Your task to perform on an android device: Search for "logitech g502" on costco, select the first entry, add it to the cart, then select checkout. Image 0: 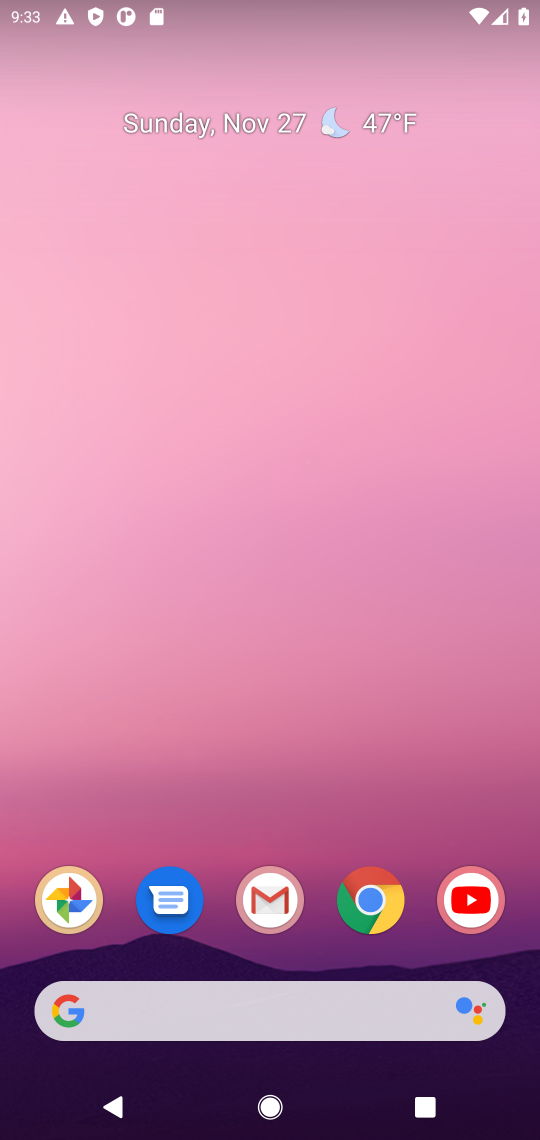
Step 0: click (374, 903)
Your task to perform on an android device: Search for "logitech g502" on costco, select the first entry, add it to the cart, then select checkout. Image 1: 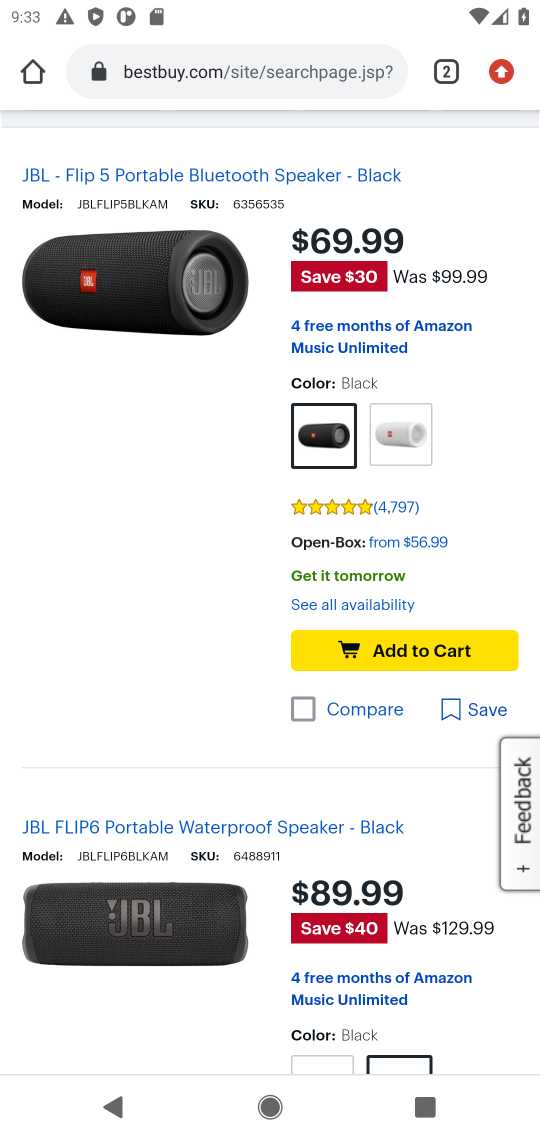
Step 1: click (199, 73)
Your task to perform on an android device: Search for "logitech g502" on costco, select the first entry, add it to the cart, then select checkout. Image 2: 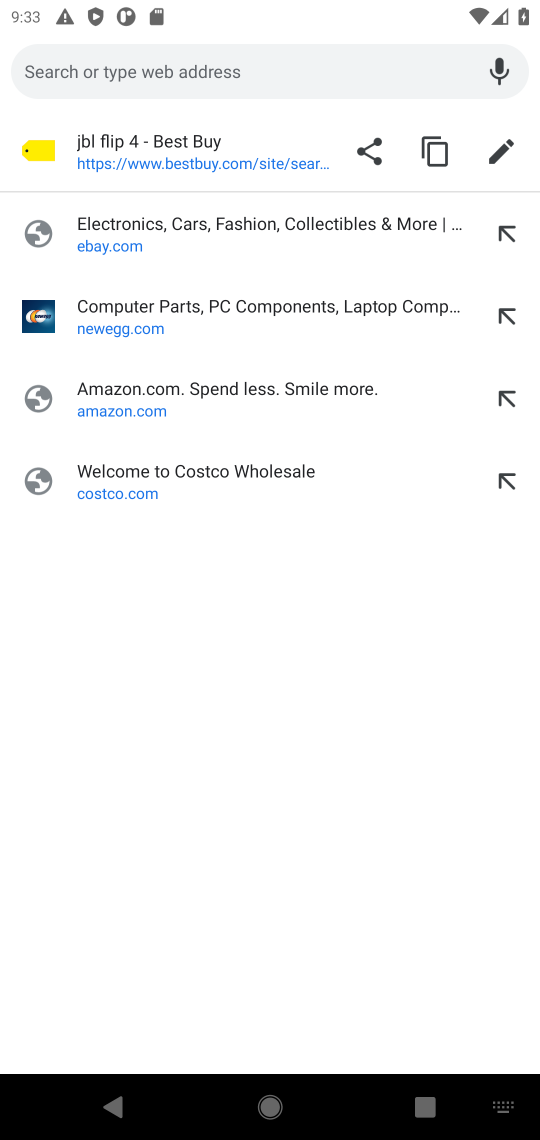
Step 2: click (88, 472)
Your task to perform on an android device: Search for "logitech g502" on costco, select the first entry, add it to the cart, then select checkout. Image 3: 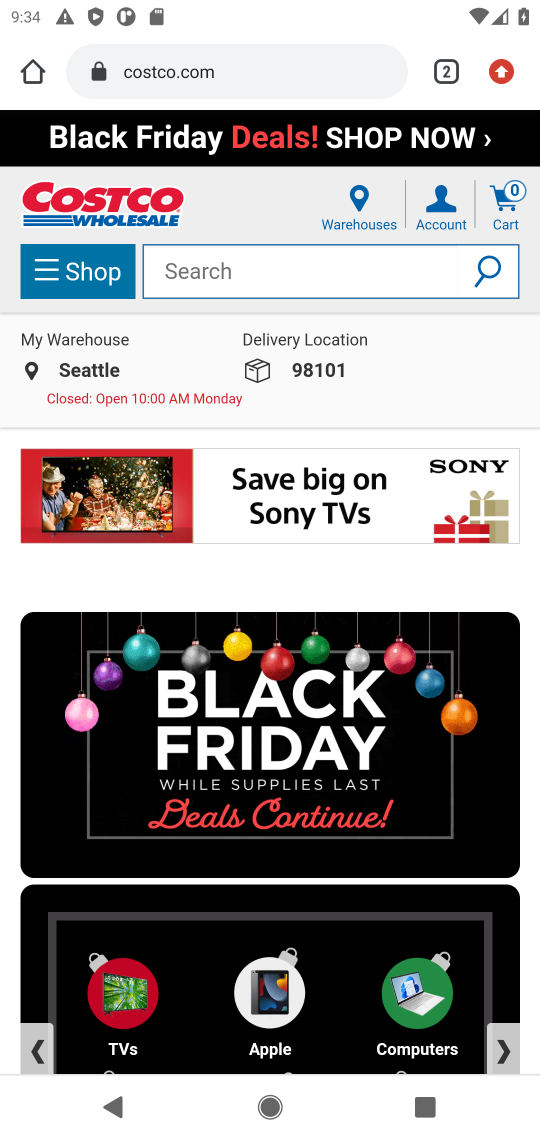
Step 3: click (230, 268)
Your task to perform on an android device: Search for "logitech g502" on costco, select the first entry, add it to the cart, then select checkout. Image 4: 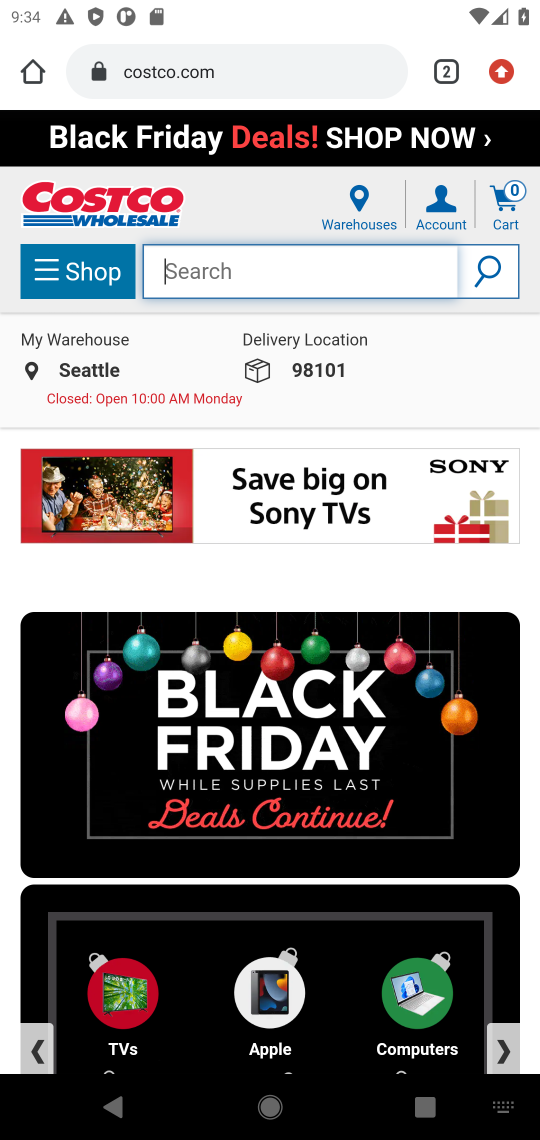
Step 4: type "logitech g502"
Your task to perform on an android device: Search for "logitech g502" on costco, select the first entry, add it to the cart, then select checkout. Image 5: 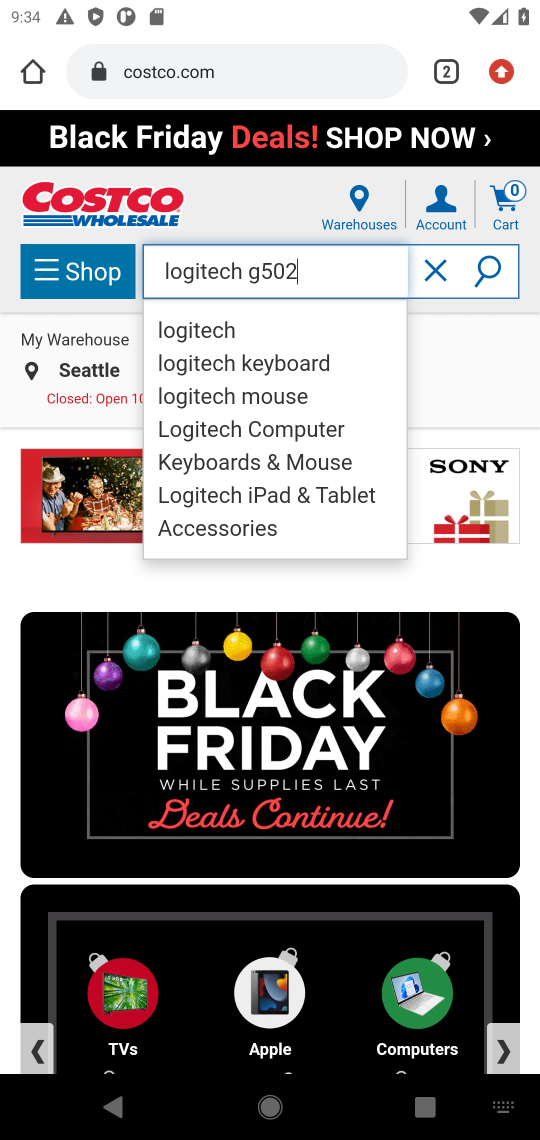
Step 5: click (484, 270)
Your task to perform on an android device: Search for "logitech g502" on costco, select the first entry, add it to the cart, then select checkout. Image 6: 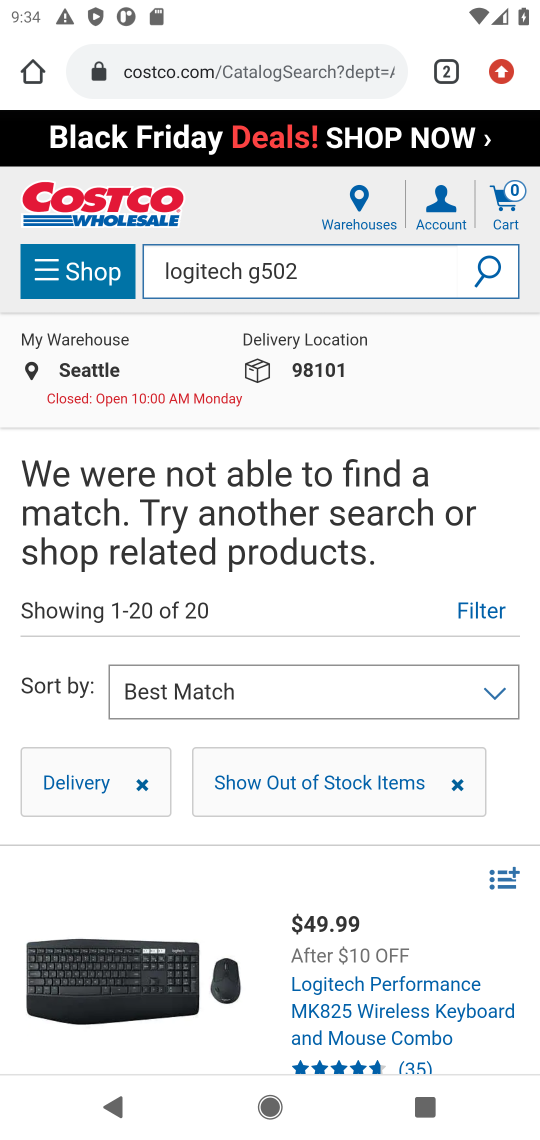
Step 6: task complete